Your task to perform on an android device: open app "LiveIn - Share Your Moment" Image 0: 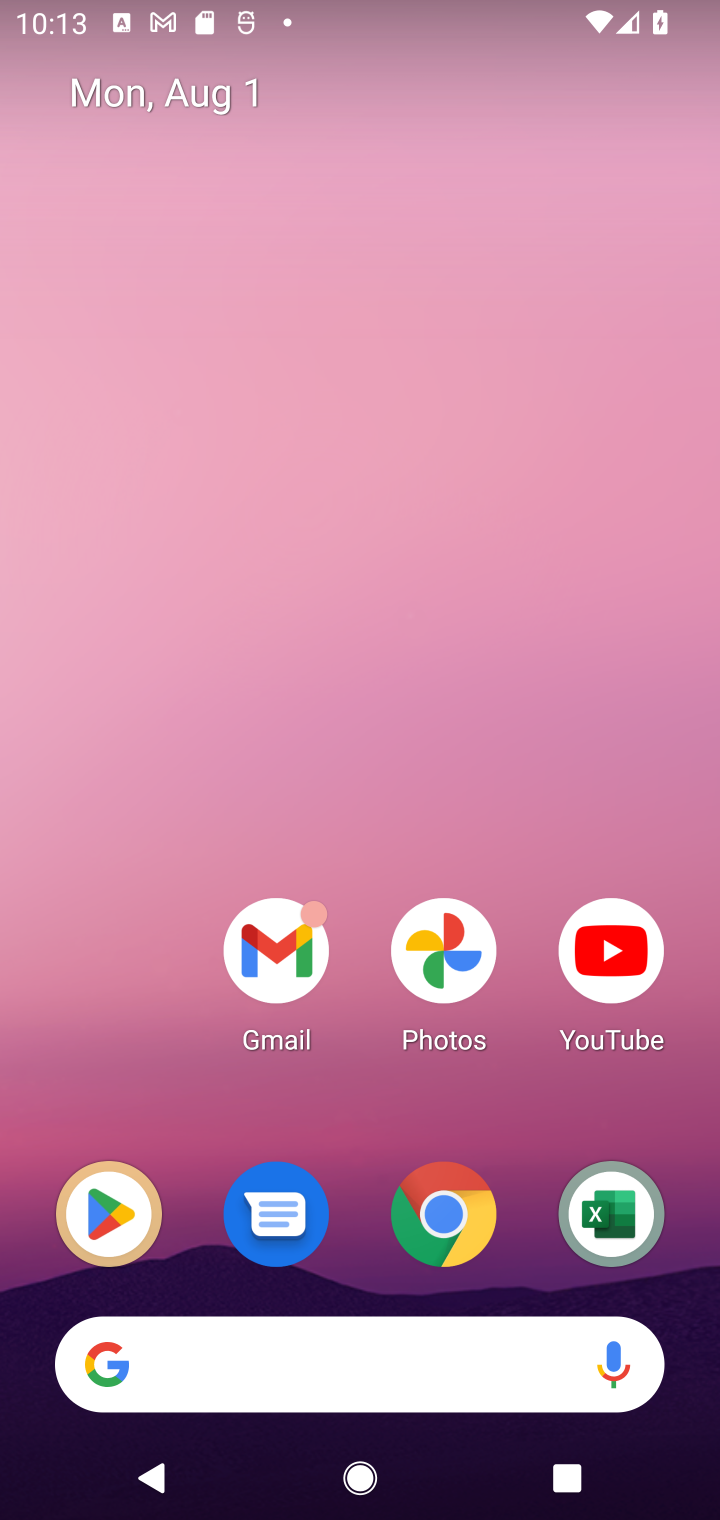
Step 0: press home button
Your task to perform on an android device: open app "LiveIn - Share Your Moment" Image 1: 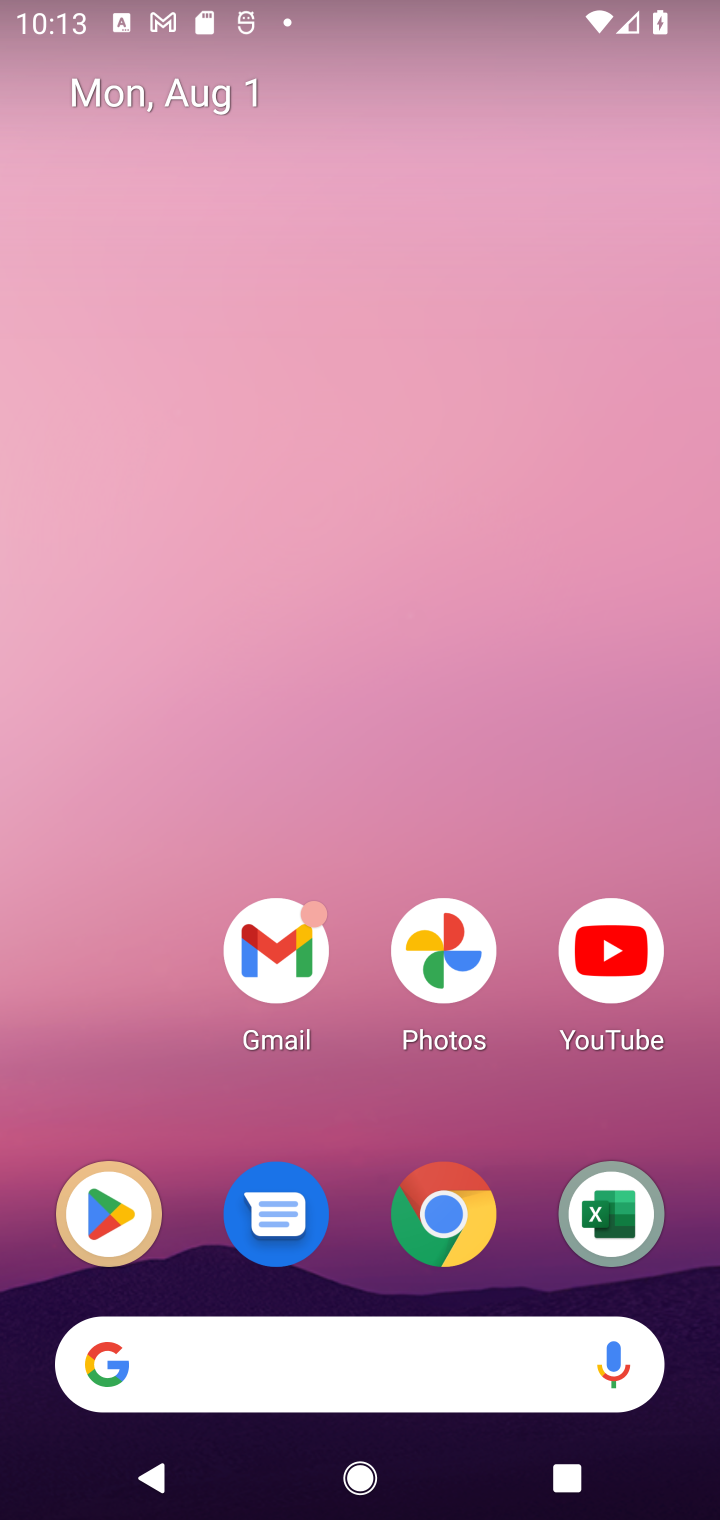
Step 1: click (106, 1228)
Your task to perform on an android device: open app "LiveIn - Share Your Moment" Image 2: 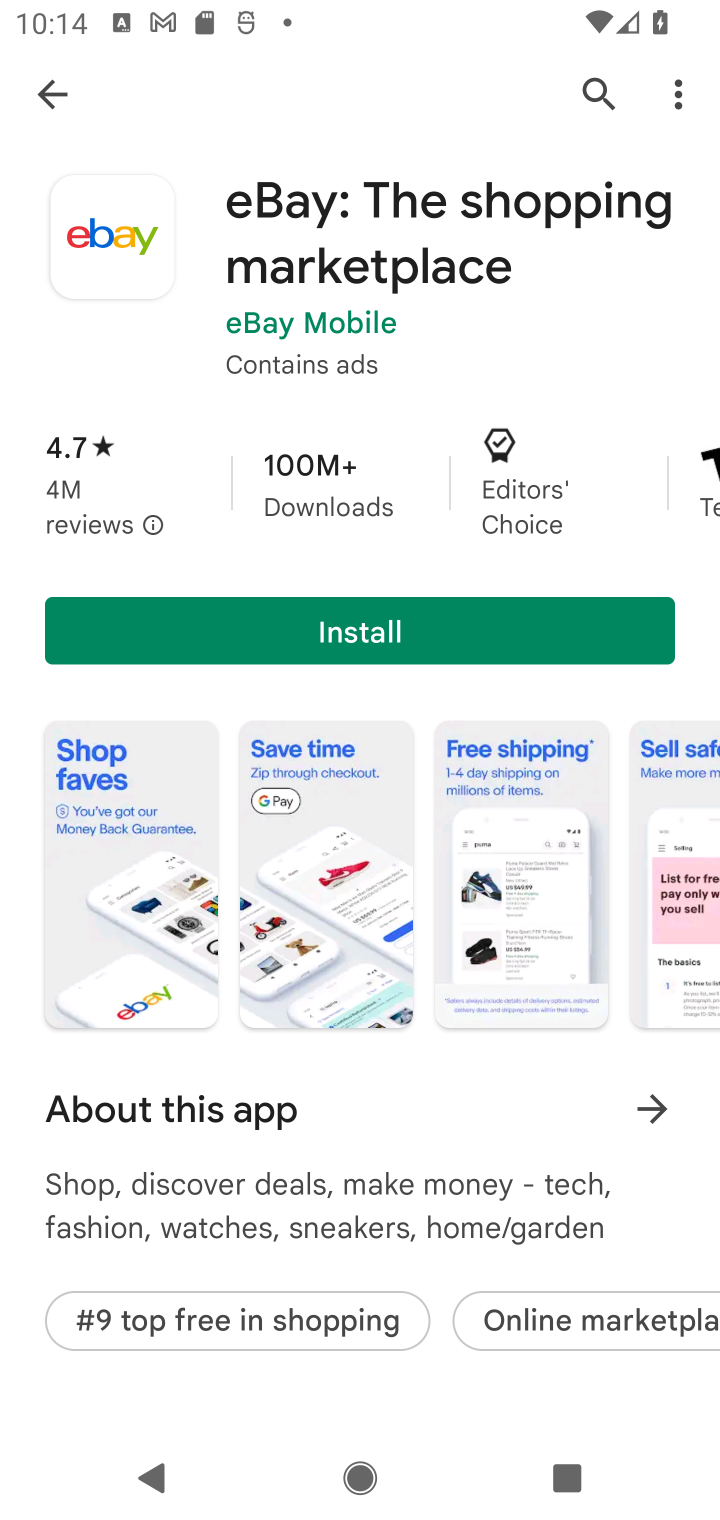
Step 2: click (586, 81)
Your task to perform on an android device: open app "LiveIn - Share Your Moment" Image 3: 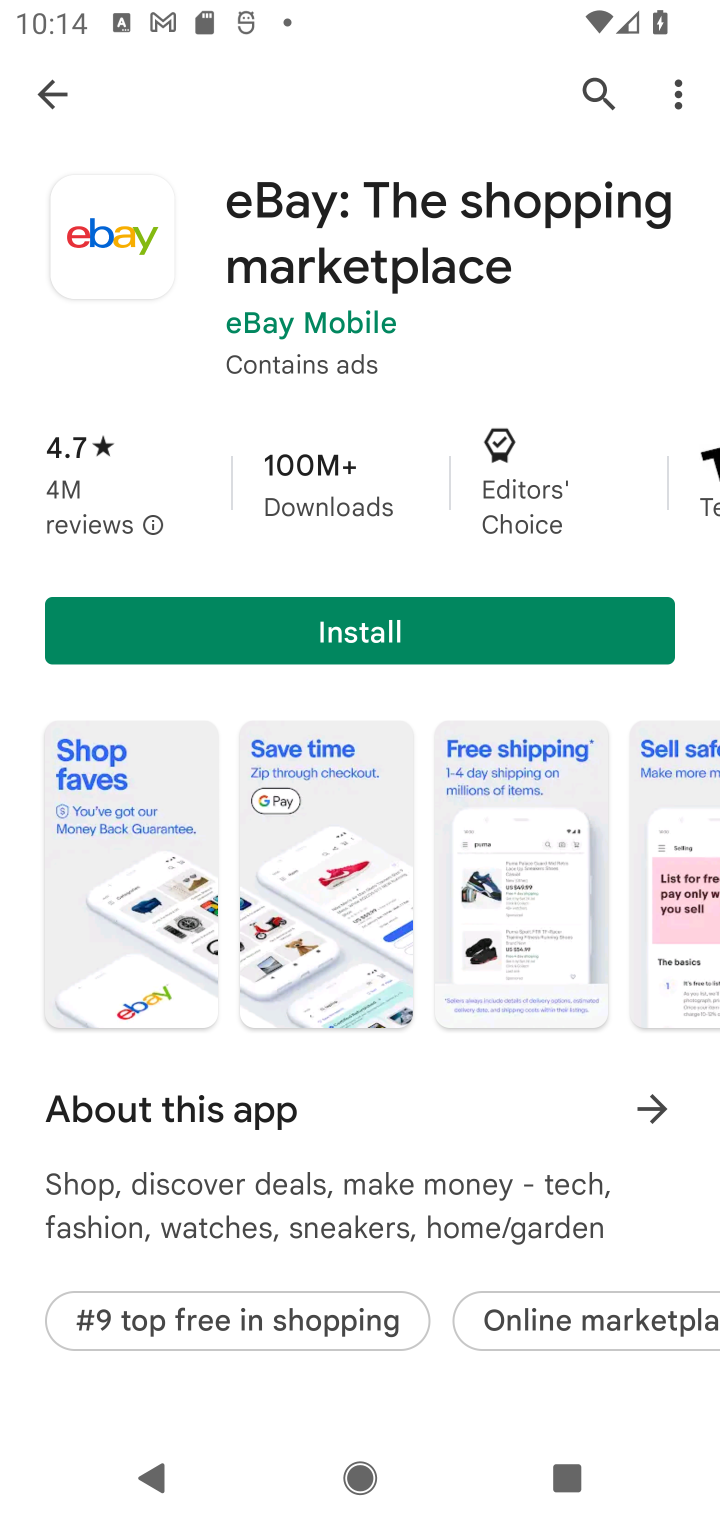
Step 3: click (586, 81)
Your task to perform on an android device: open app "LiveIn - Share Your Moment" Image 4: 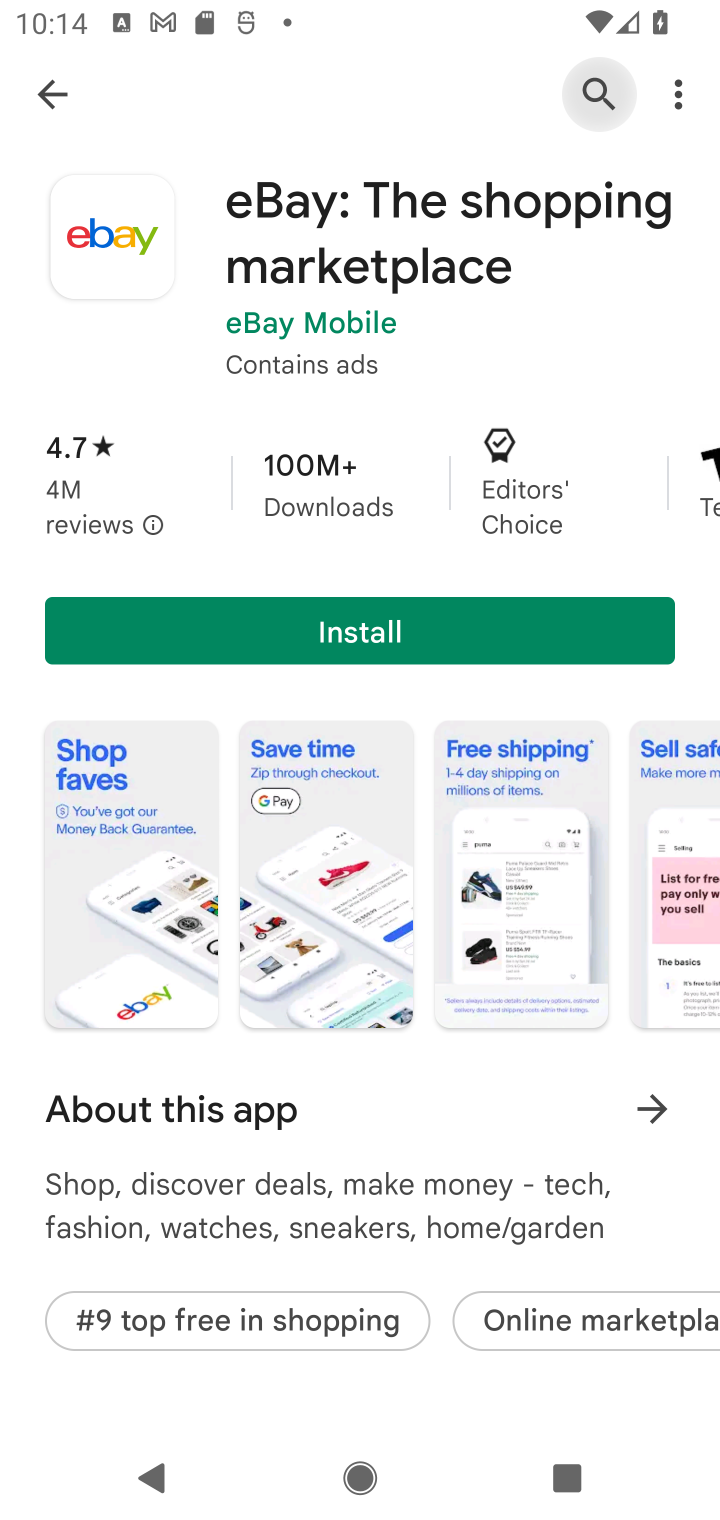
Step 4: click (39, 97)
Your task to perform on an android device: open app "LiveIn - Share Your Moment" Image 5: 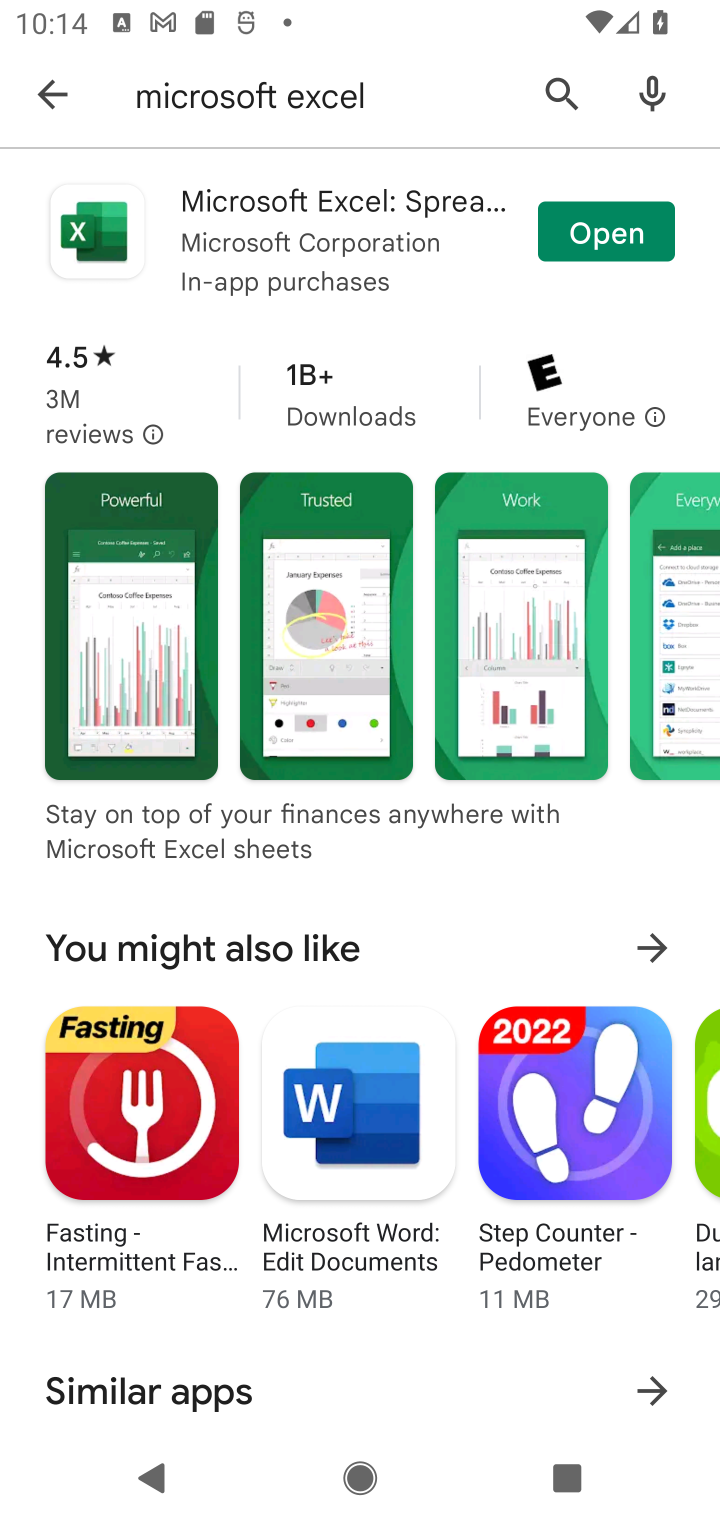
Step 5: click (551, 88)
Your task to perform on an android device: open app "LiveIn - Share Your Moment" Image 6: 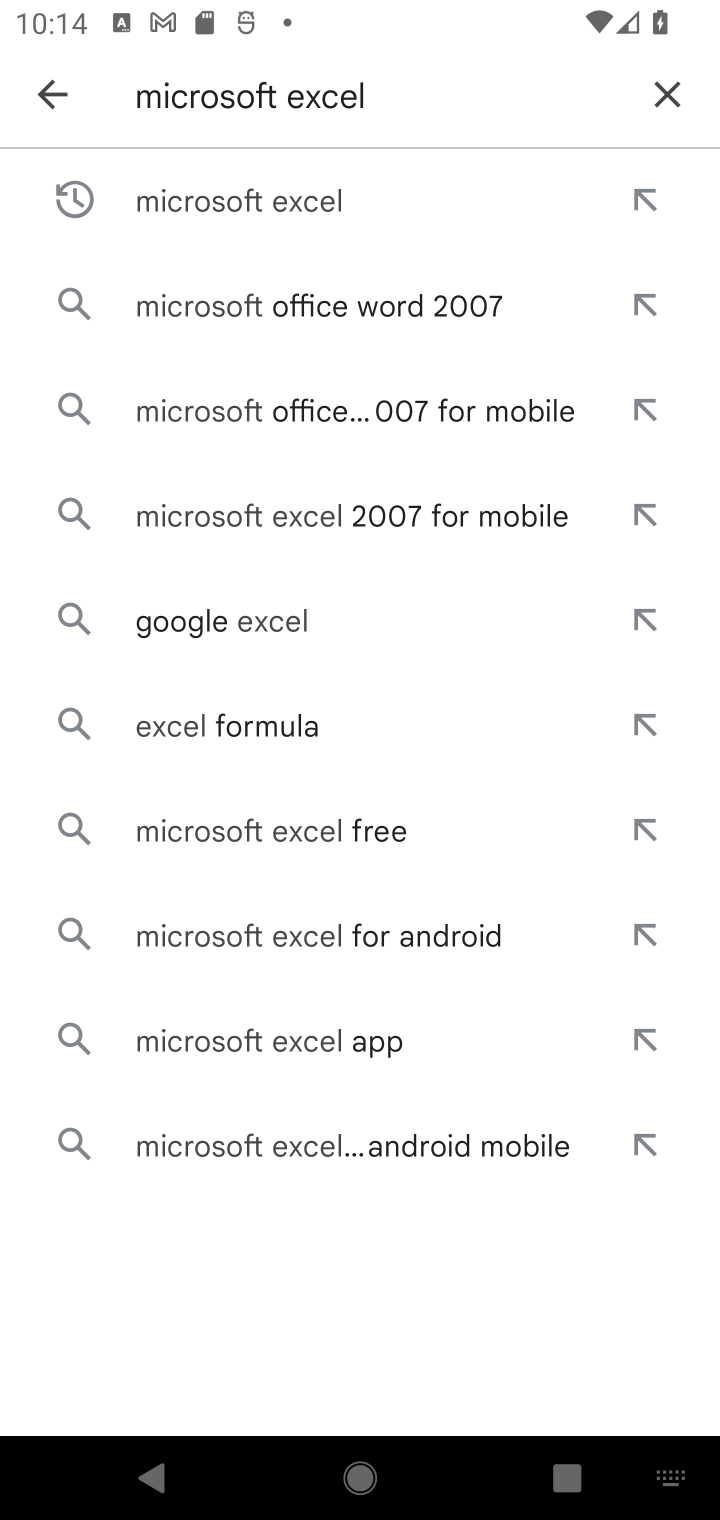
Step 6: click (655, 94)
Your task to perform on an android device: open app "LiveIn - Share Your Moment" Image 7: 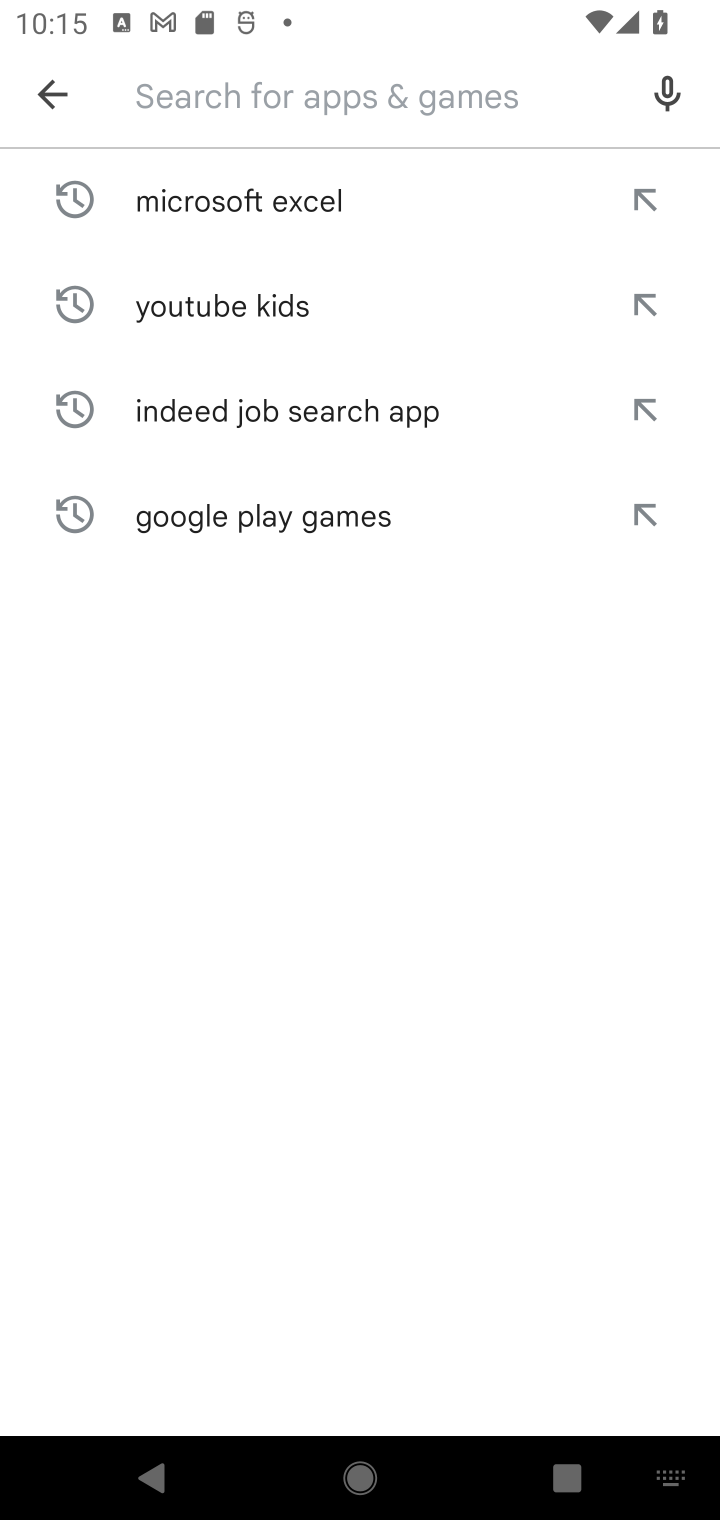
Step 7: type "LiveIn - Share Your Moment"
Your task to perform on an android device: open app "LiveIn - Share Your Moment" Image 8: 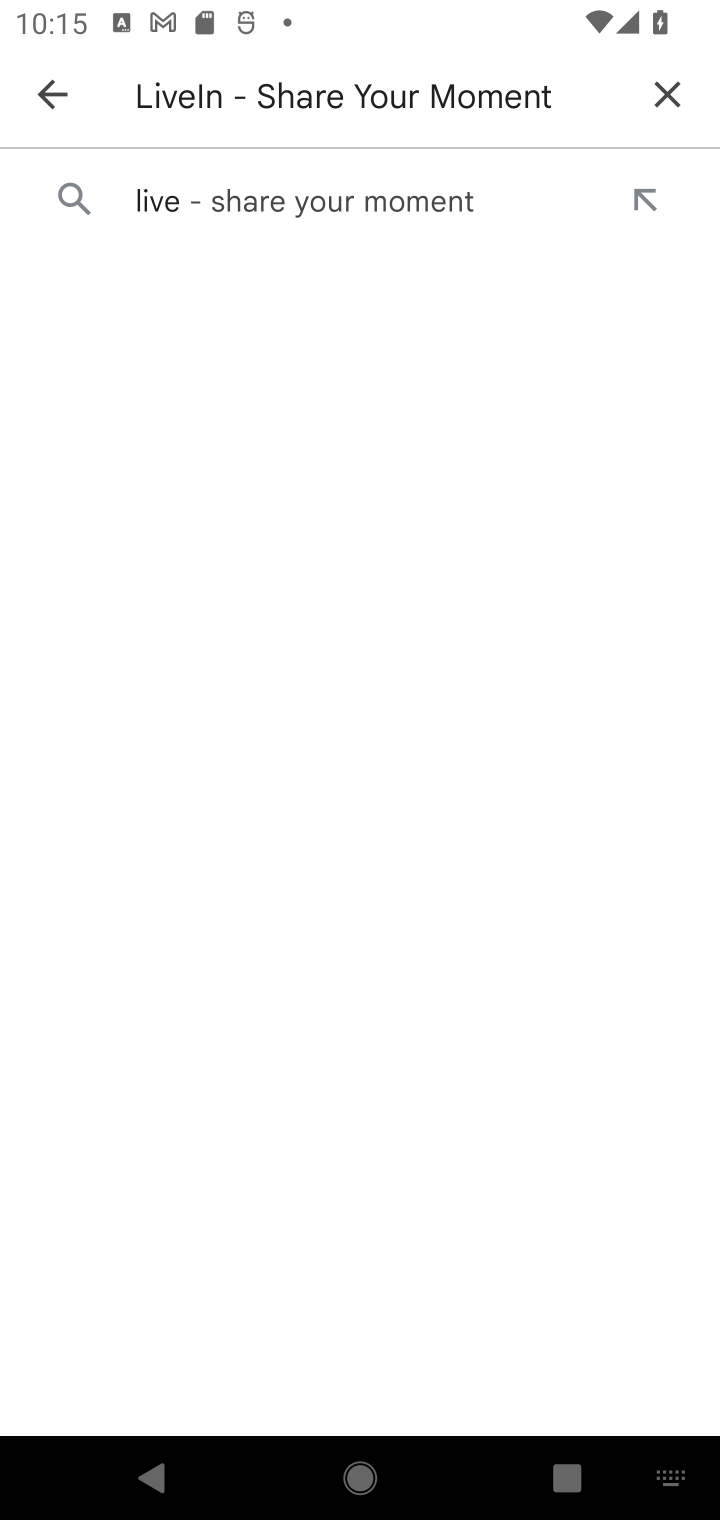
Step 8: click (334, 206)
Your task to perform on an android device: open app "LiveIn - Share Your Moment" Image 9: 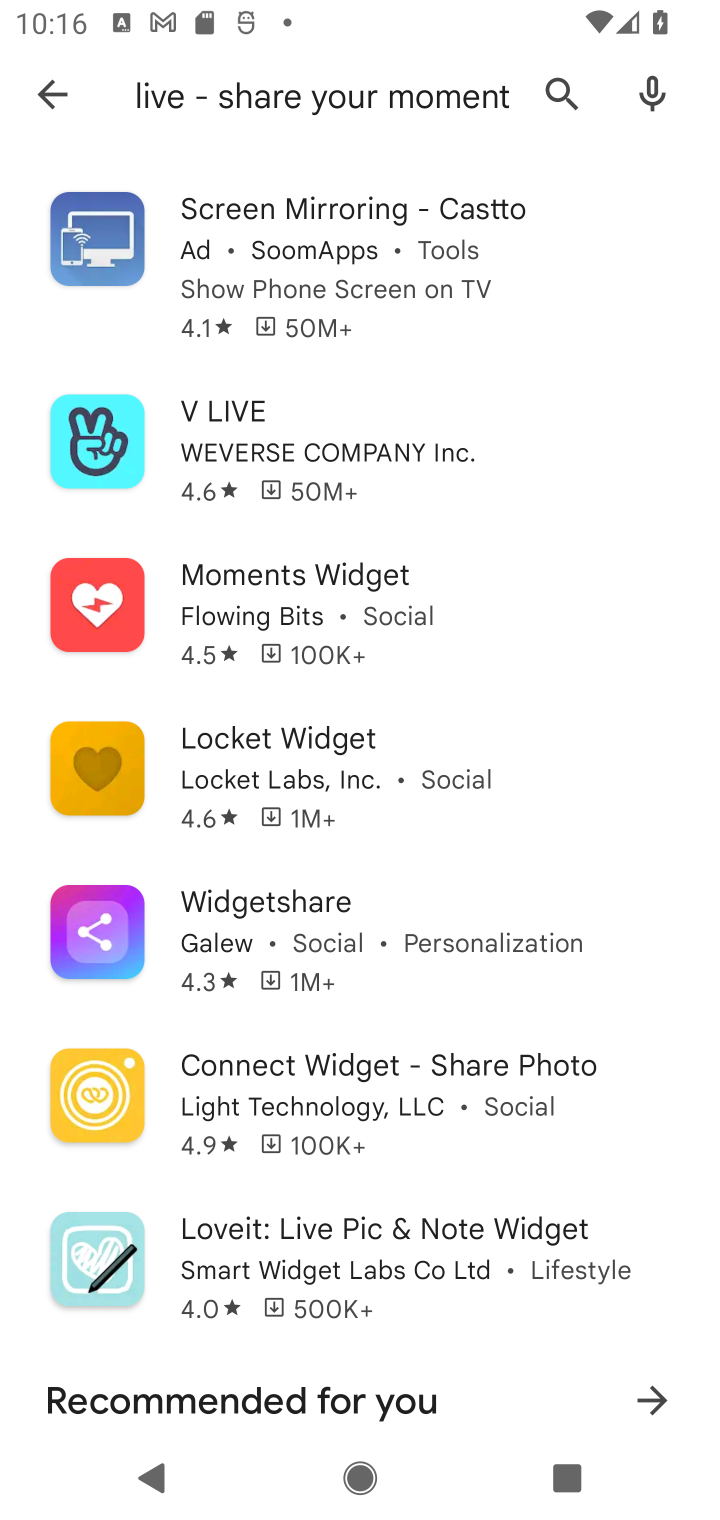
Step 9: task complete